Your task to perform on an android device: What's the weather? Image 0: 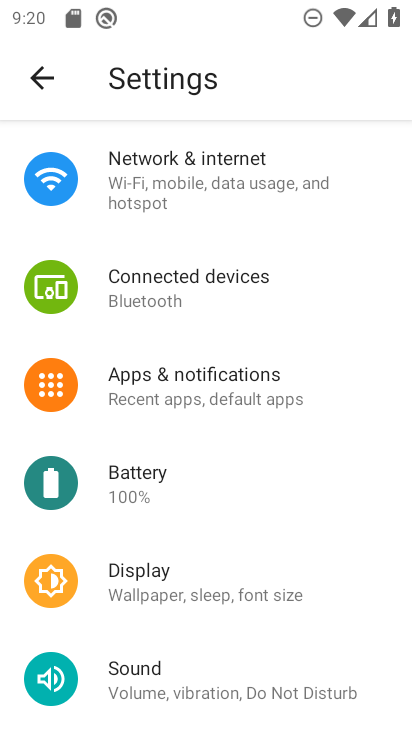
Step 0: press home button
Your task to perform on an android device: What's the weather? Image 1: 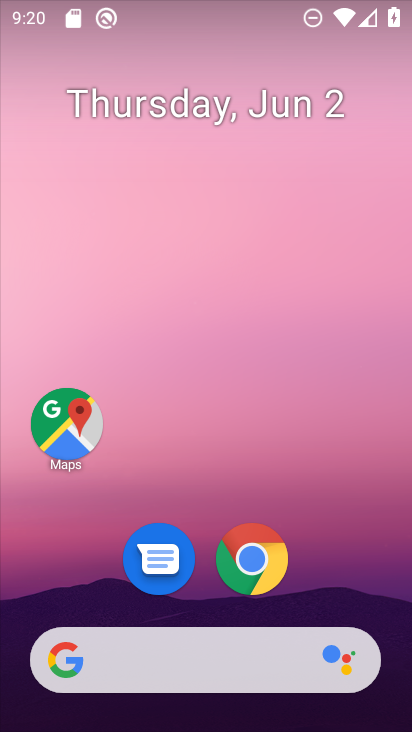
Step 1: click (215, 675)
Your task to perform on an android device: What's the weather? Image 2: 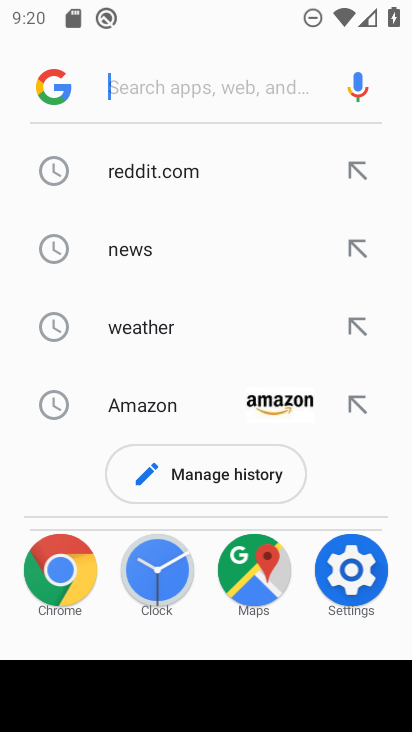
Step 2: click (154, 322)
Your task to perform on an android device: What's the weather? Image 3: 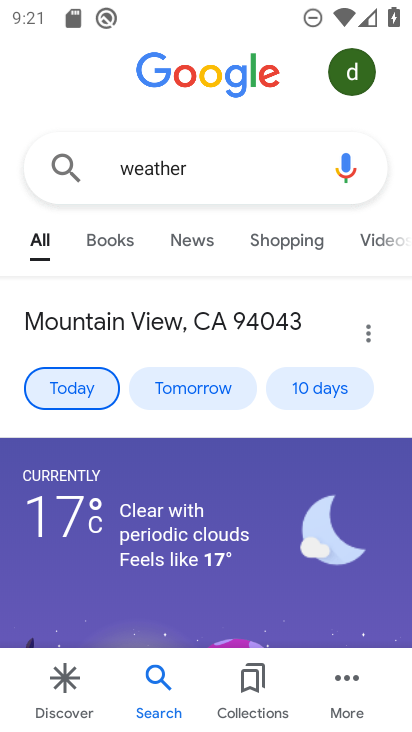
Step 3: task complete